Your task to perform on an android device: Search for vegetarian restaurants on Maps Image 0: 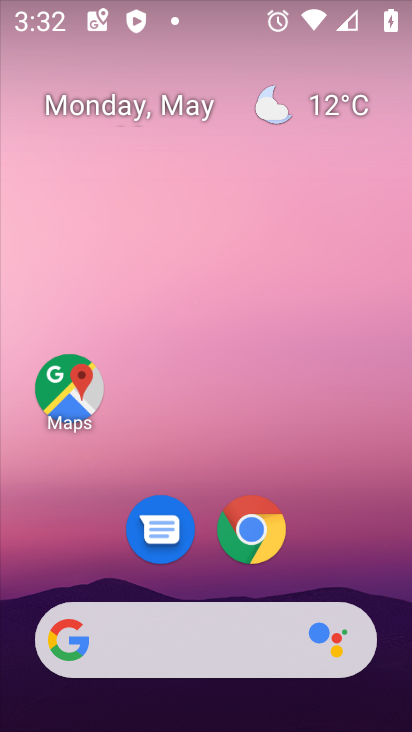
Step 0: drag from (206, 568) to (221, 33)
Your task to perform on an android device: Search for vegetarian restaurants on Maps Image 1: 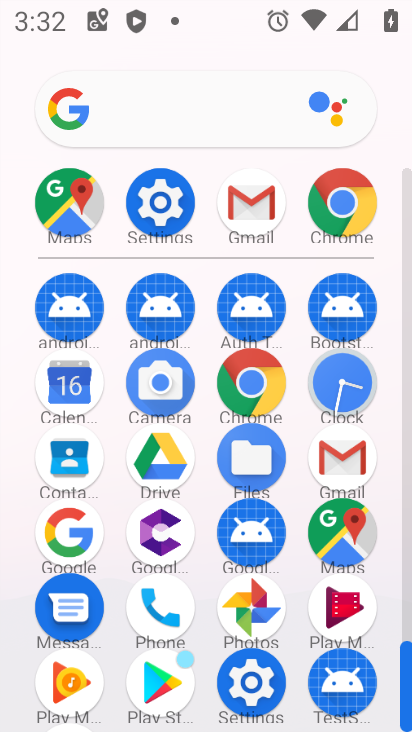
Step 1: click (69, 201)
Your task to perform on an android device: Search for vegetarian restaurants on Maps Image 2: 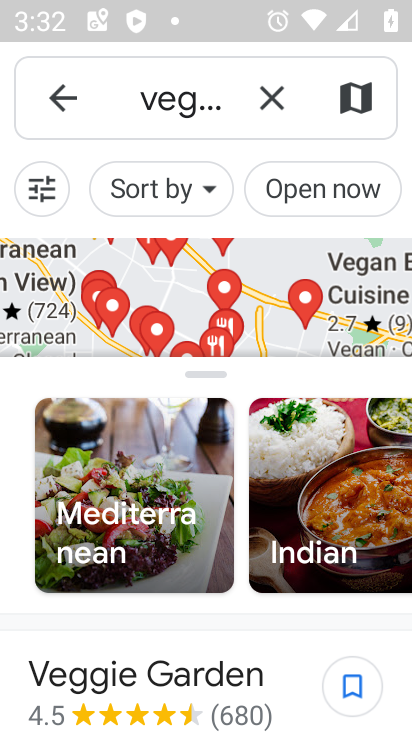
Step 2: task complete